Your task to perform on an android device: install app "Google Translate" Image 0: 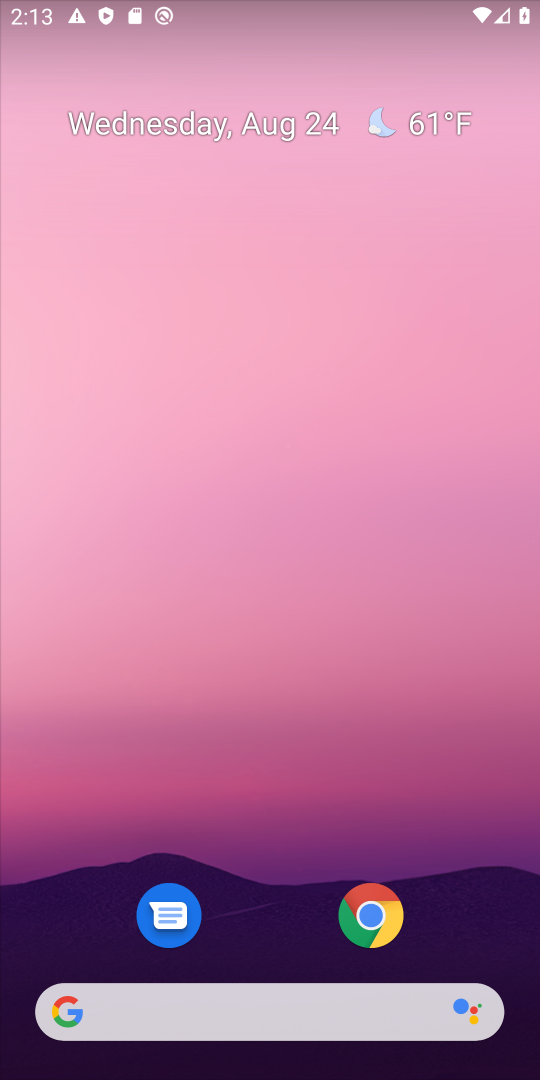
Step 0: drag from (302, 657) to (356, 255)
Your task to perform on an android device: install app "Google Translate" Image 1: 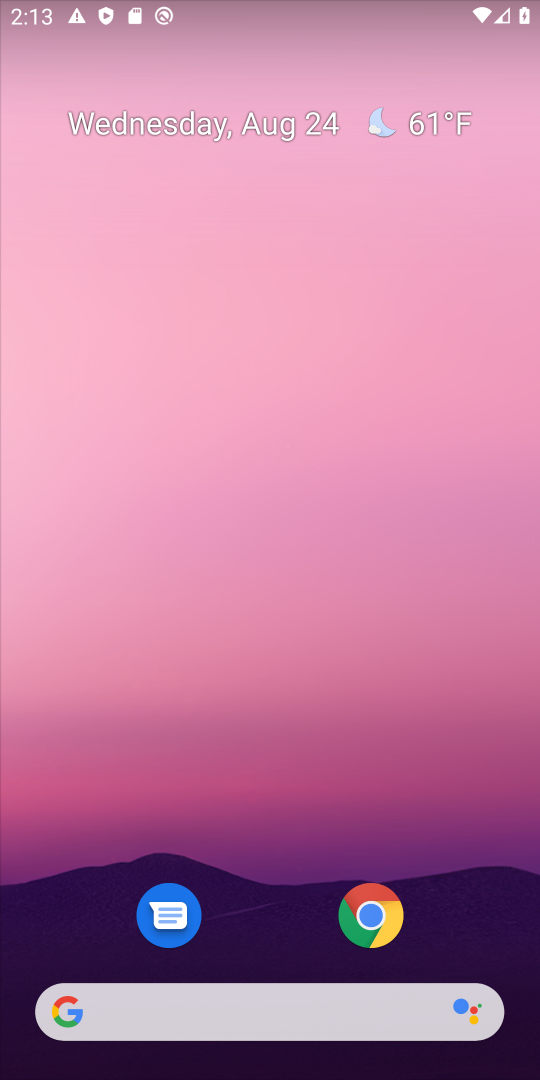
Step 1: drag from (290, 840) to (360, 45)
Your task to perform on an android device: install app "Google Translate" Image 2: 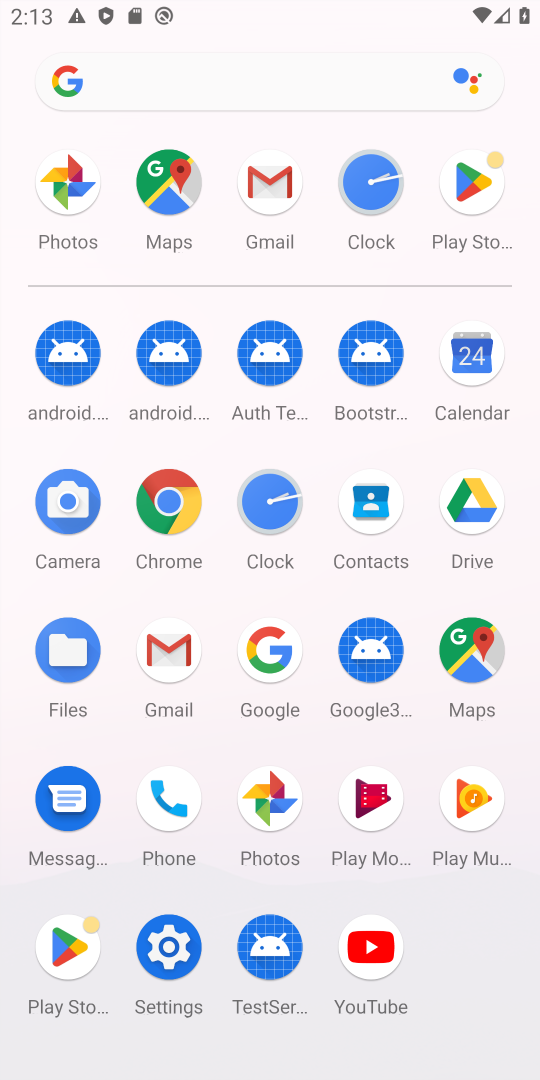
Step 2: click (455, 198)
Your task to perform on an android device: install app "Google Translate" Image 3: 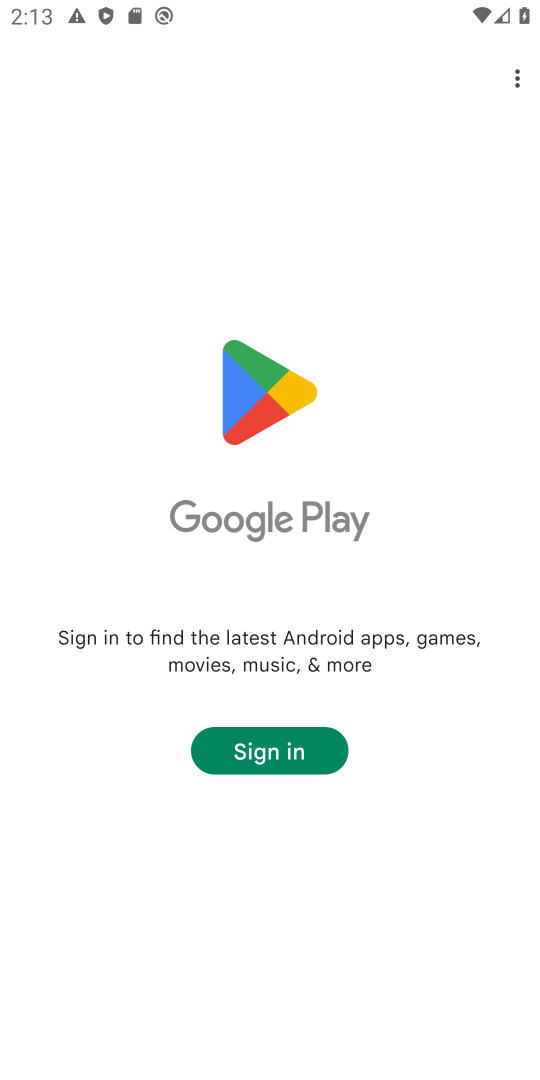
Step 3: task complete